Your task to perform on an android device: change keyboard looks Image 0: 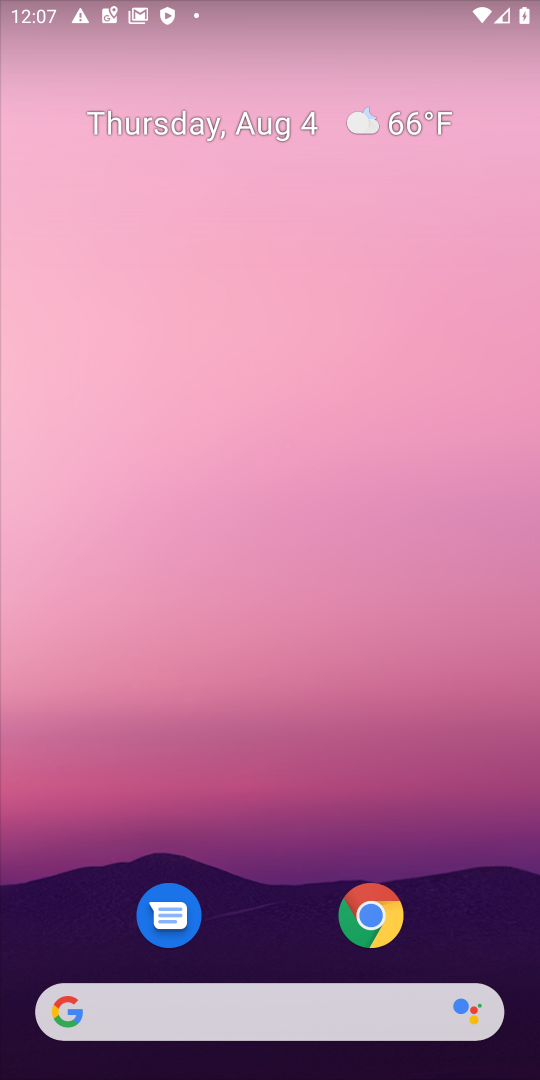
Step 0: press home button
Your task to perform on an android device: change keyboard looks Image 1: 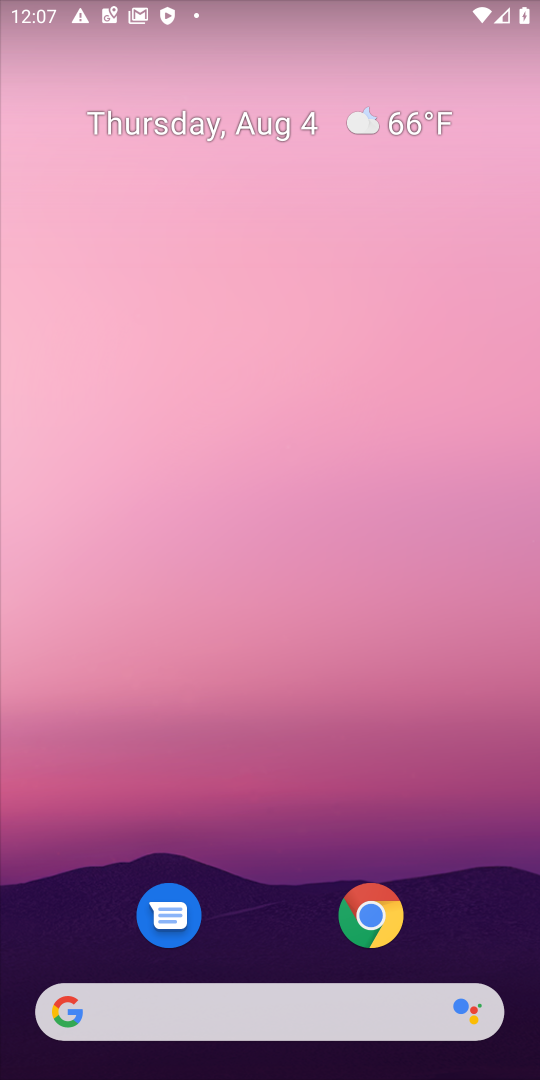
Step 1: drag from (282, 861) to (343, 350)
Your task to perform on an android device: change keyboard looks Image 2: 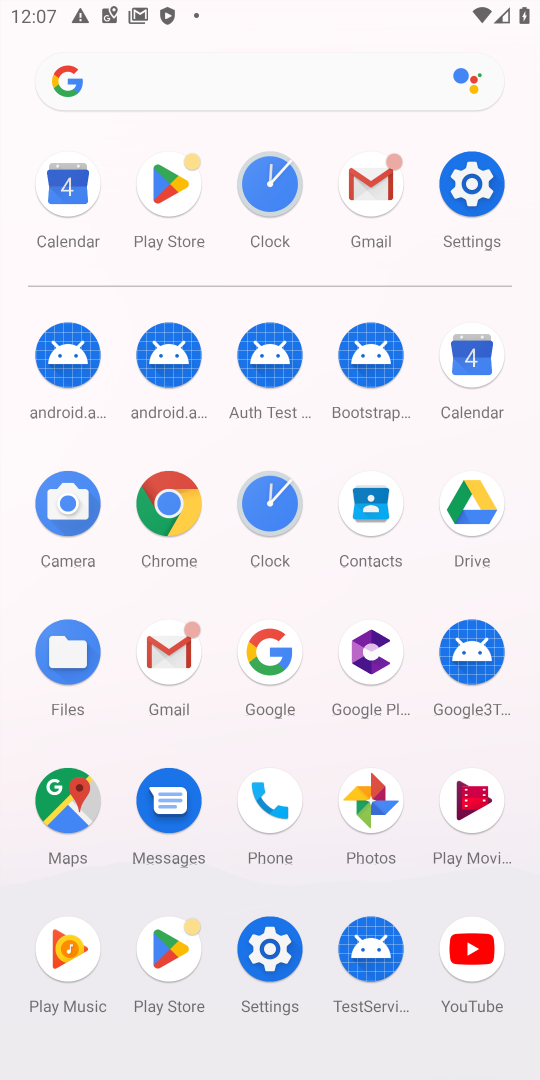
Step 2: click (472, 197)
Your task to perform on an android device: change keyboard looks Image 3: 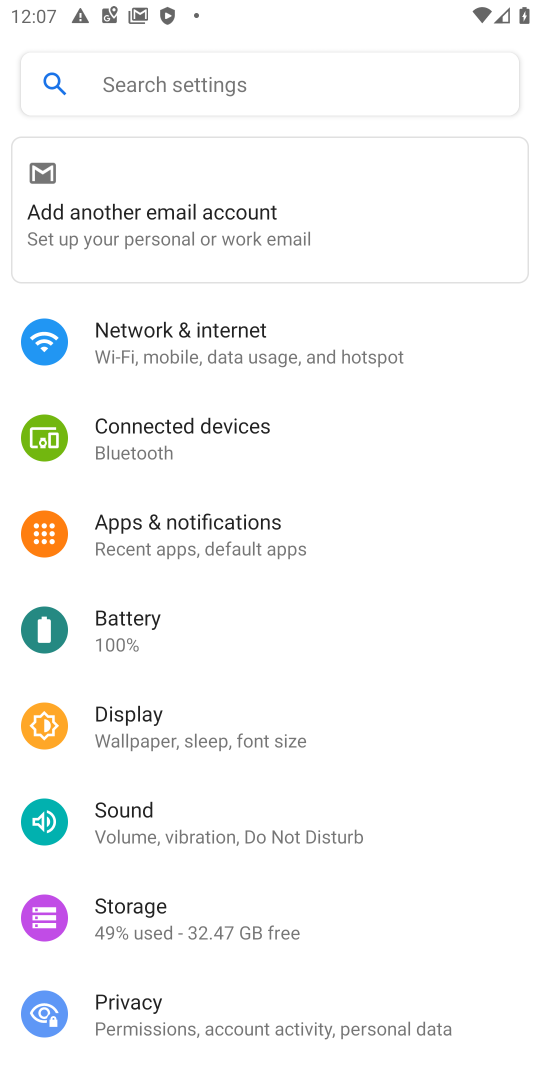
Step 3: drag from (220, 772) to (165, 61)
Your task to perform on an android device: change keyboard looks Image 4: 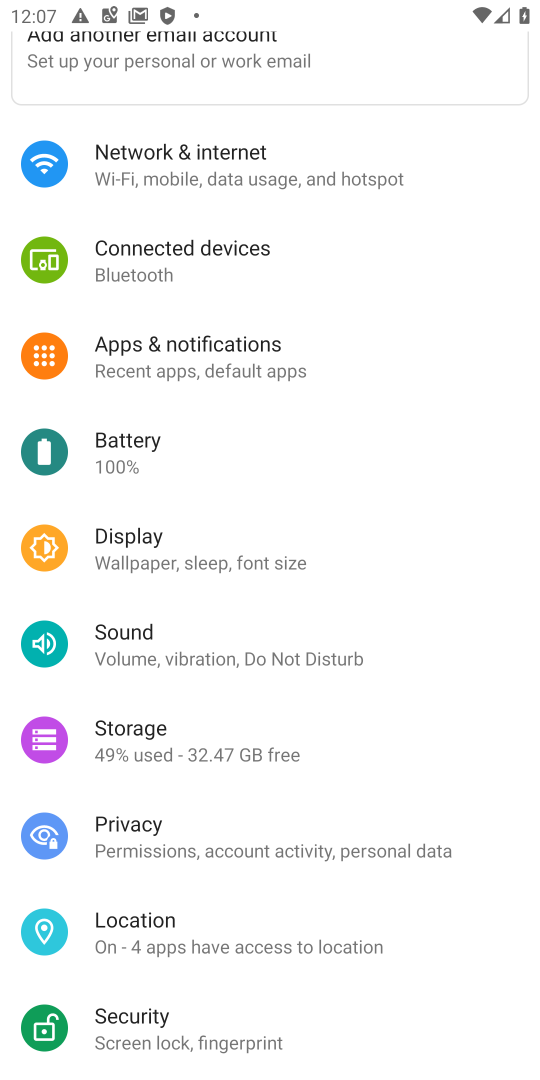
Step 4: drag from (225, 921) to (237, 448)
Your task to perform on an android device: change keyboard looks Image 5: 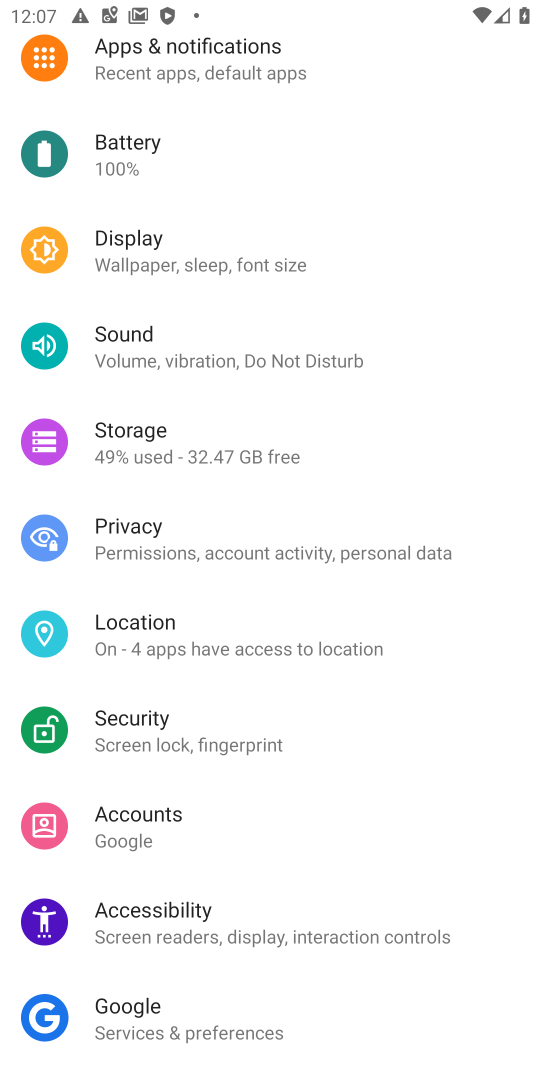
Step 5: click (250, 657)
Your task to perform on an android device: change keyboard looks Image 6: 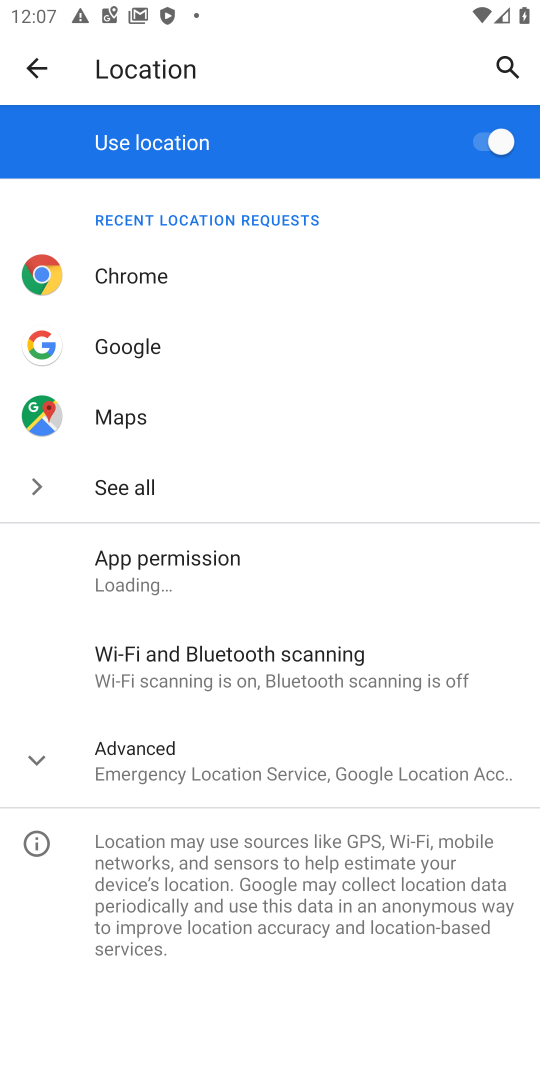
Step 6: click (25, 61)
Your task to perform on an android device: change keyboard looks Image 7: 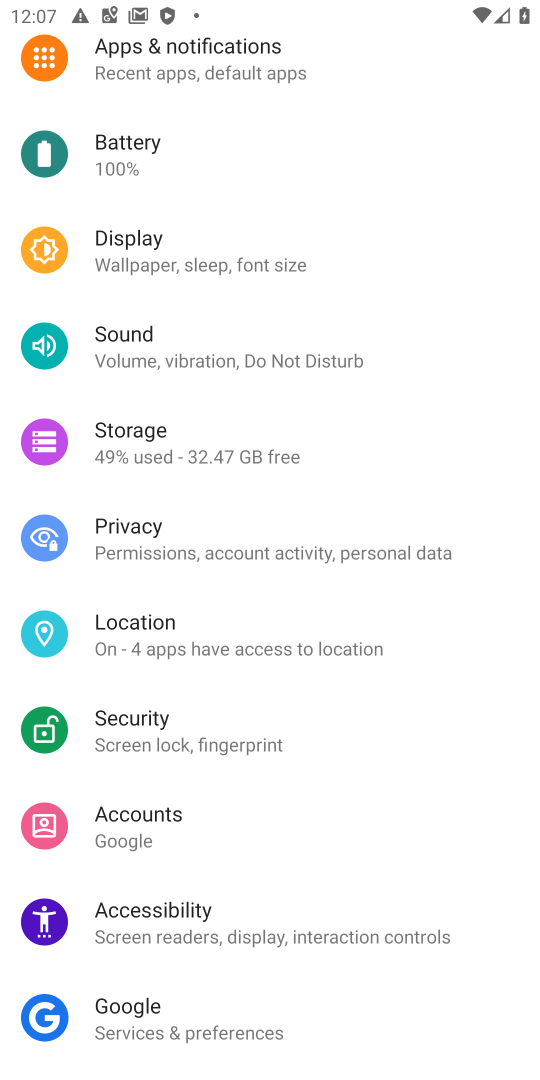
Step 7: drag from (208, 831) to (153, 293)
Your task to perform on an android device: change keyboard looks Image 8: 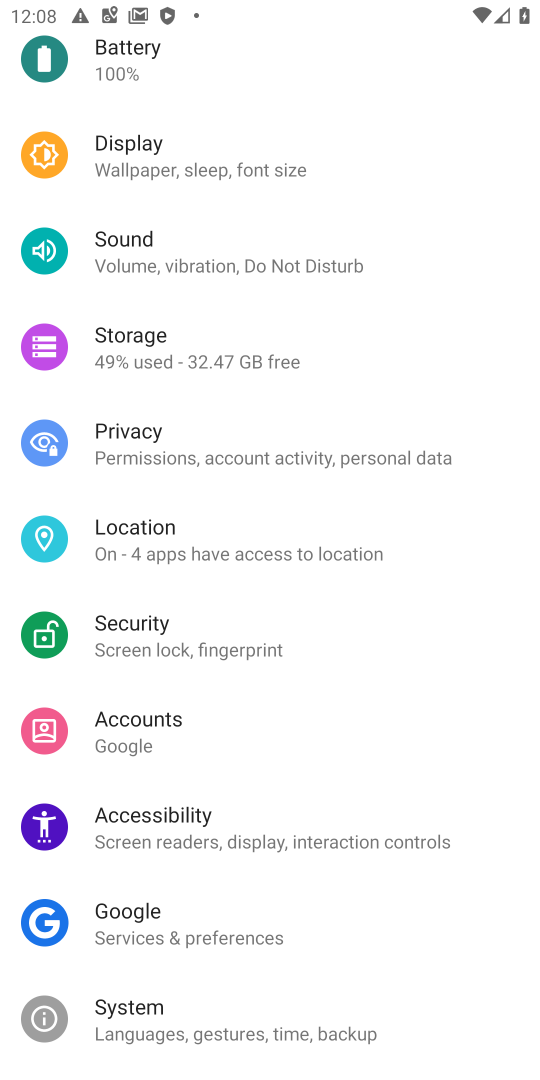
Step 8: click (154, 1026)
Your task to perform on an android device: change keyboard looks Image 9: 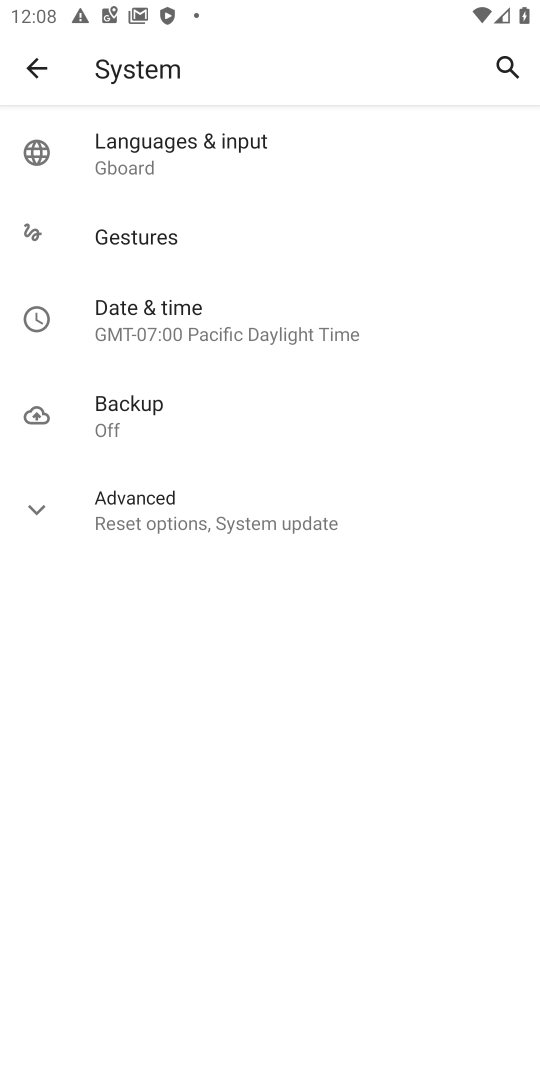
Step 9: click (87, 149)
Your task to perform on an android device: change keyboard looks Image 10: 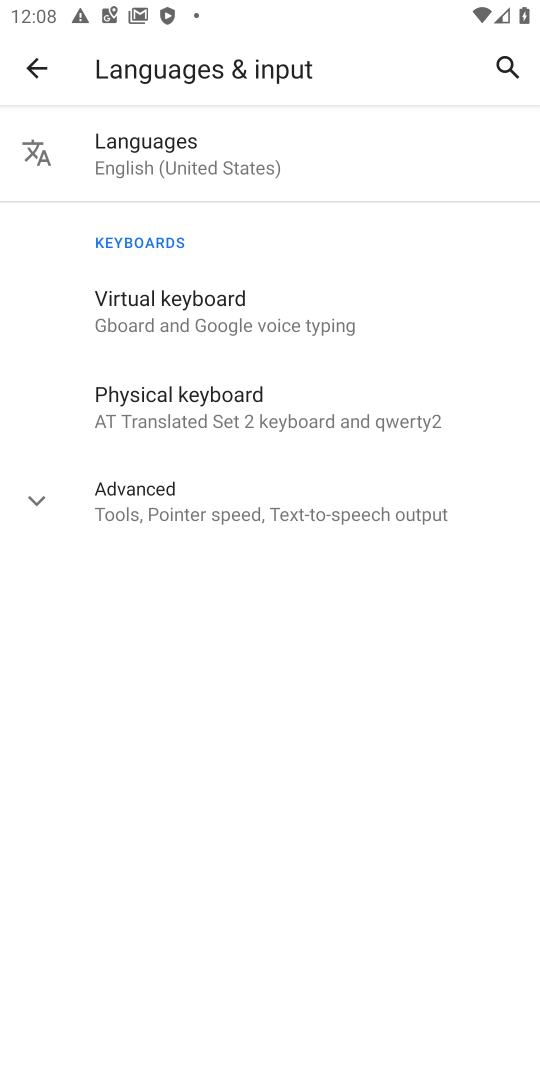
Step 10: click (212, 321)
Your task to perform on an android device: change keyboard looks Image 11: 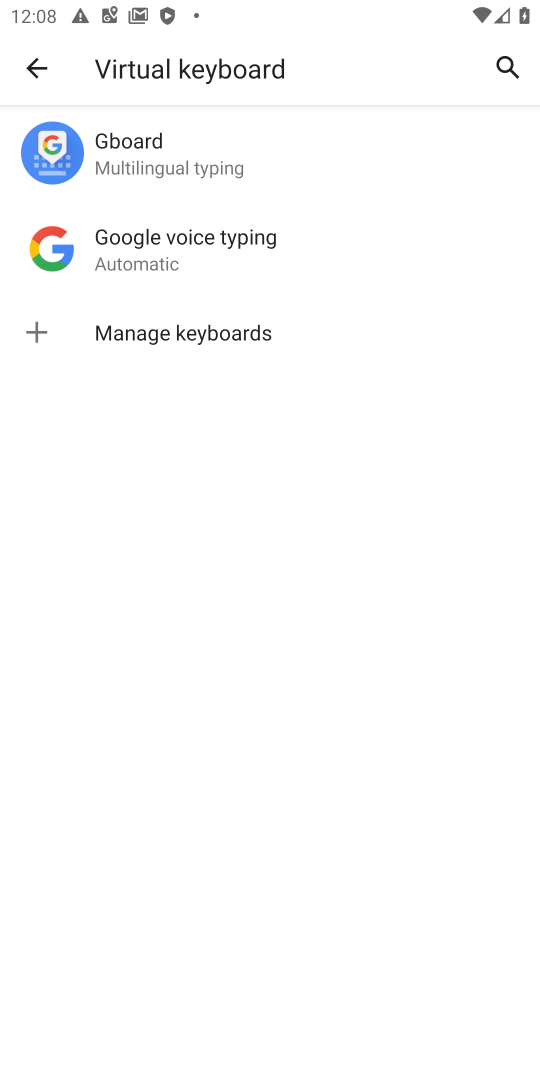
Step 11: click (117, 168)
Your task to perform on an android device: change keyboard looks Image 12: 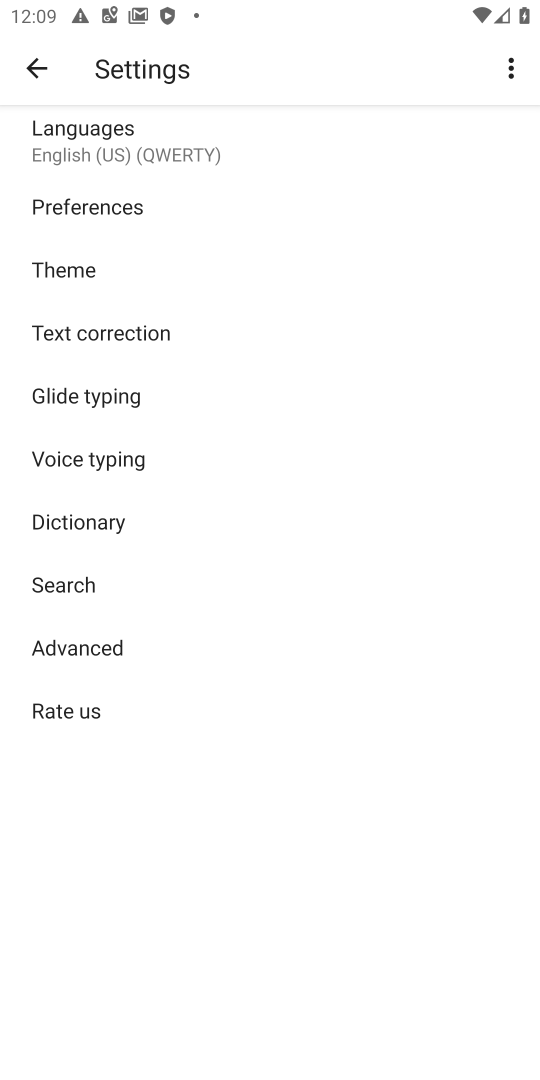
Step 12: click (90, 274)
Your task to perform on an android device: change keyboard looks Image 13: 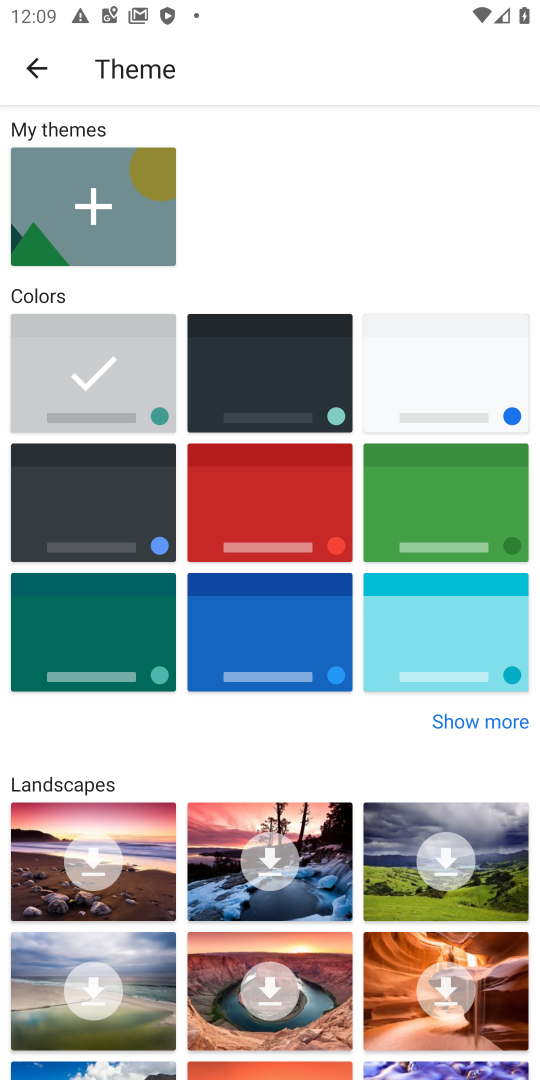
Step 13: click (229, 344)
Your task to perform on an android device: change keyboard looks Image 14: 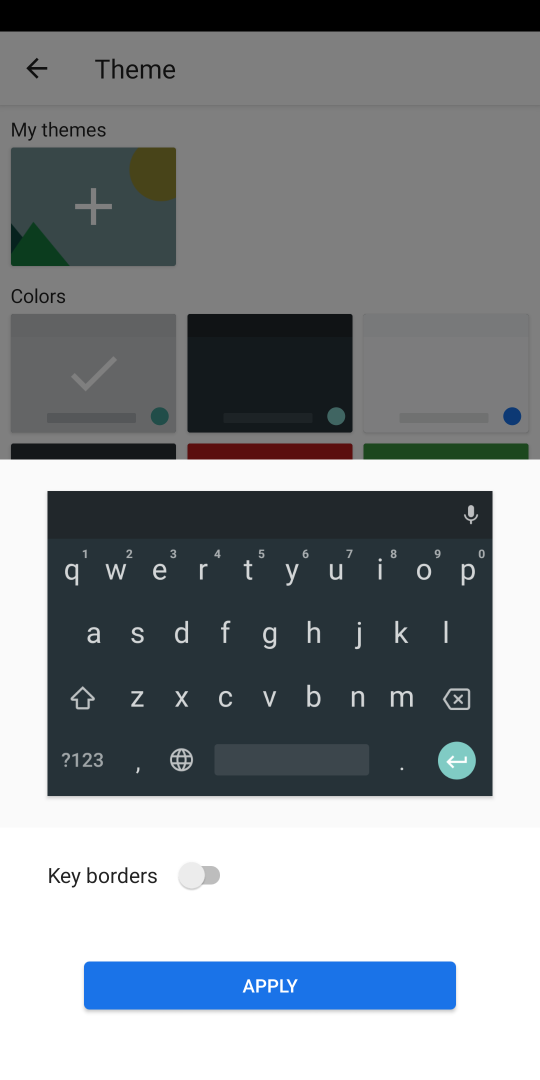
Step 14: click (243, 982)
Your task to perform on an android device: change keyboard looks Image 15: 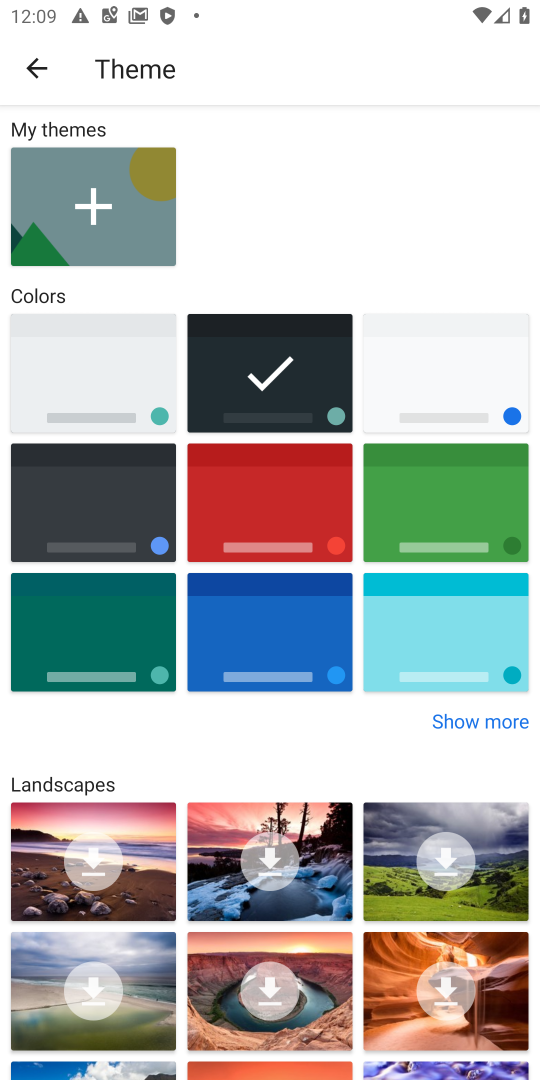
Step 15: task complete